Your task to perform on an android device: Open my contact list Image 0: 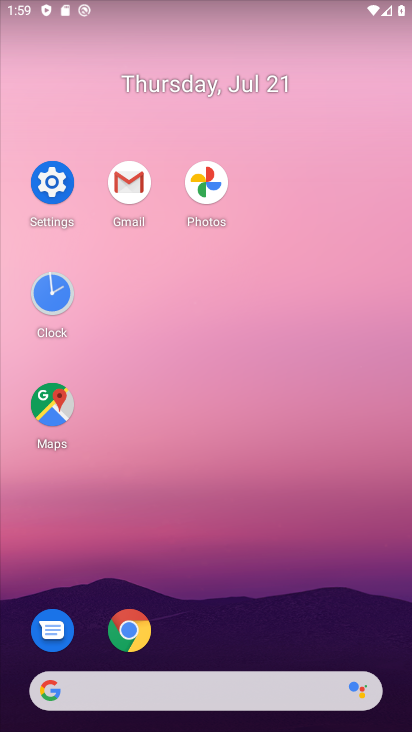
Step 0: drag from (261, 614) to (247, 289)
Your task to perform on an android device: Open my contact list Image 1: 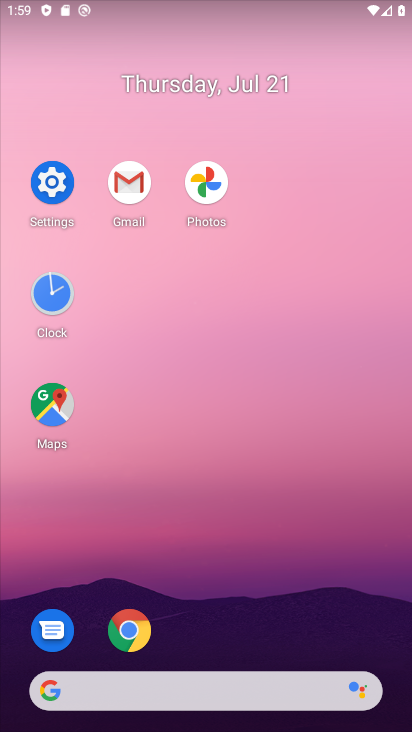
Step 1: drag from (312, 614) to (252, 207)
Your task to perform on an android device: Open my contact list Image 2: 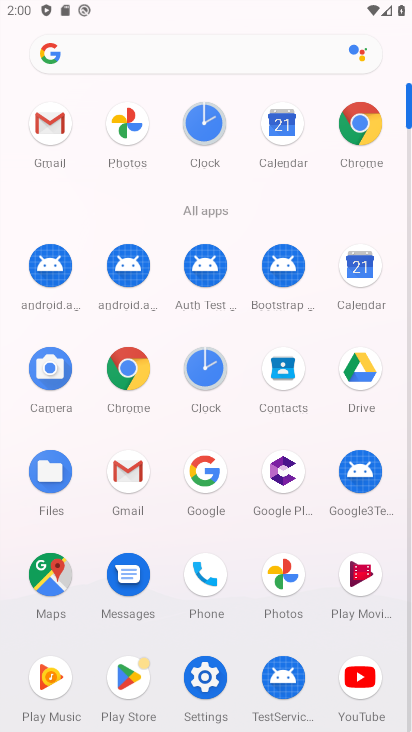
Step 2: click (293, 380)
Your task to perform on an android device: Open my contact list Image 3: 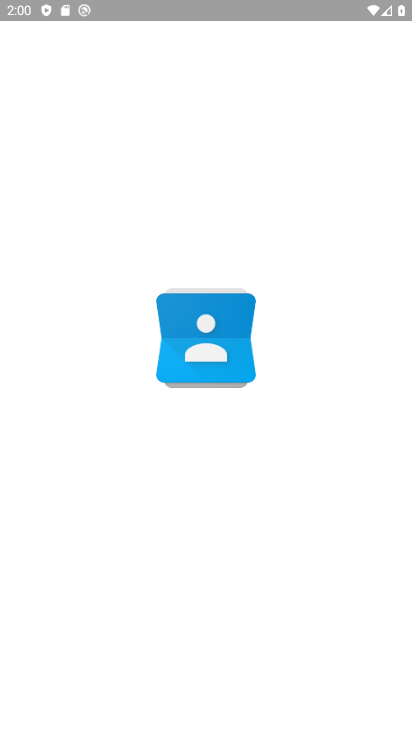
Step 3: task complete